Your task to perform on an android device: Search for Italian restaurants on Maps Image 0: 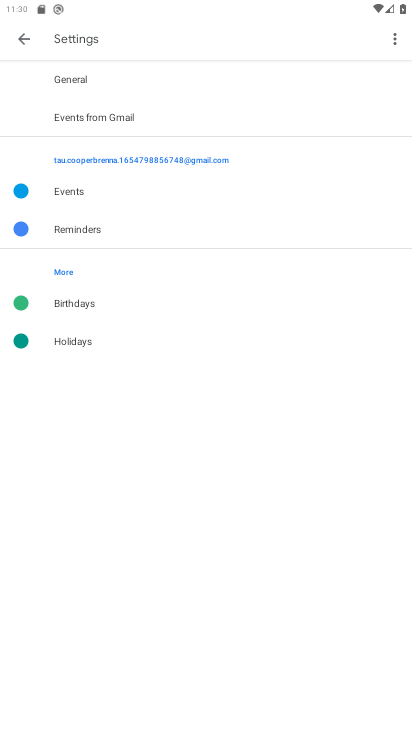
Step 0: press home button
Your task to perform on an android device: Search for Italian restaurants on Maps Image 1: 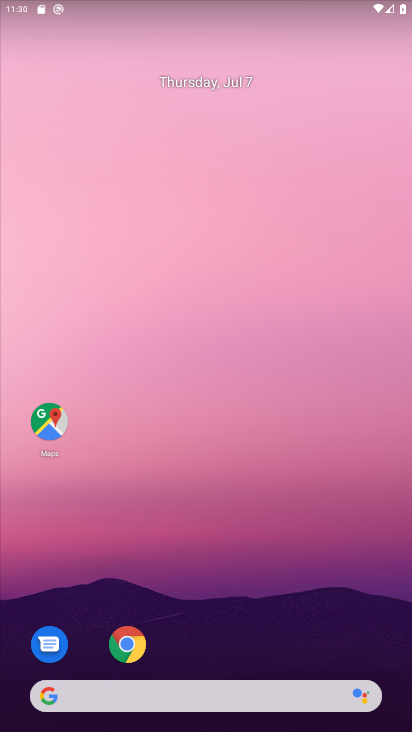
Step 1: click (45, 416)
Your task to perform on an android device: Search for Italian restaurants on Maps Image 2: 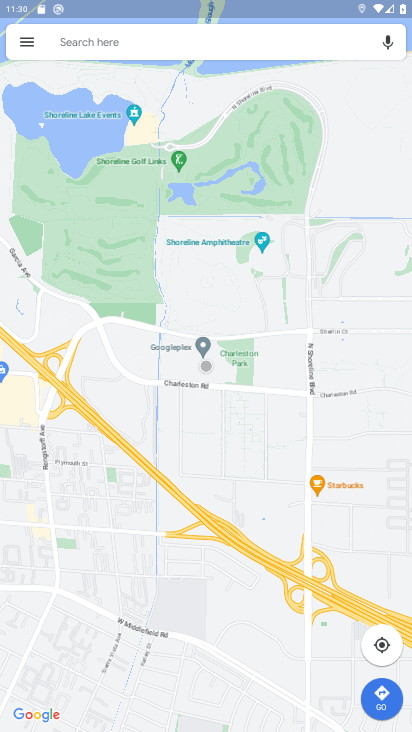
Step 2: click (95, 37)
Your task to perform on an android device: Search for Italian restaurants on Maps Image 3: 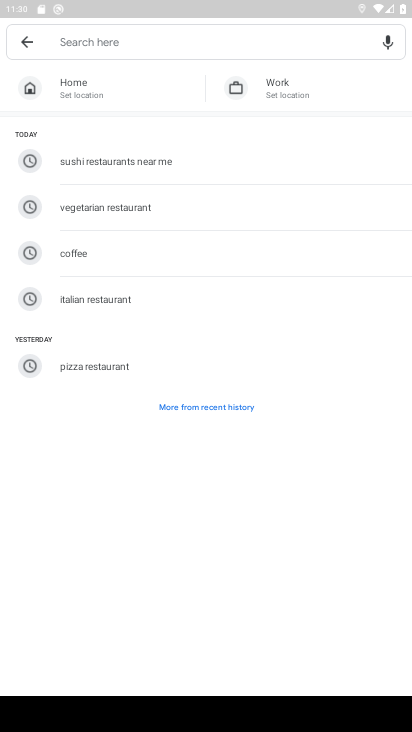
Step 3: click (96, 42)
Your task to perform on an android device: Search for Italian restaurants on Maps Image 4: 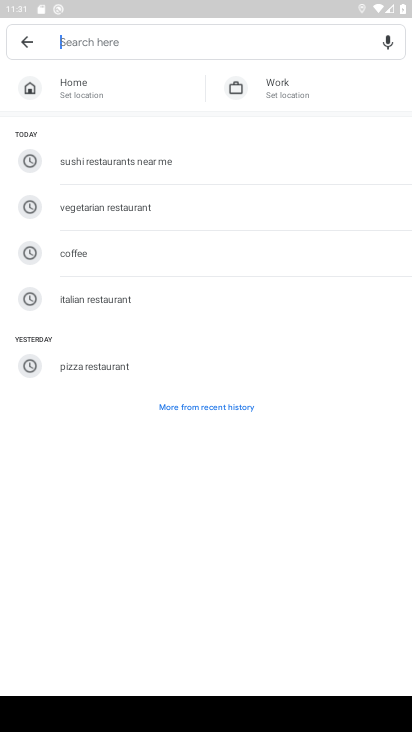
Step 4: type "Italian restaurants"
Your task to perform on an android device: Search for Italian restaurants on Maps Image 5: 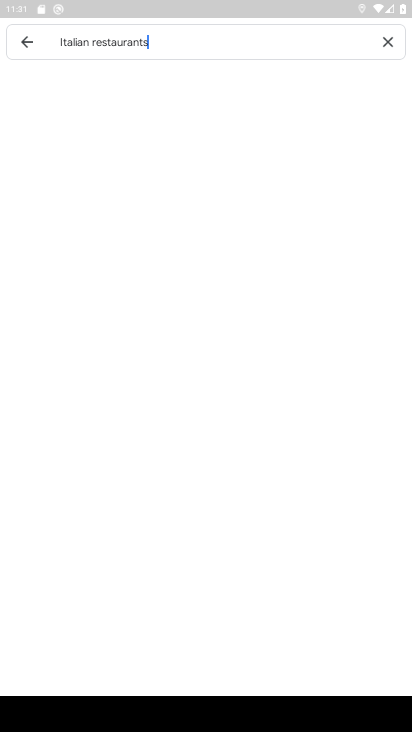
Step 5: type ""
Your task to perform on an android device: Search for Italian restaurants on Maps Image 6: 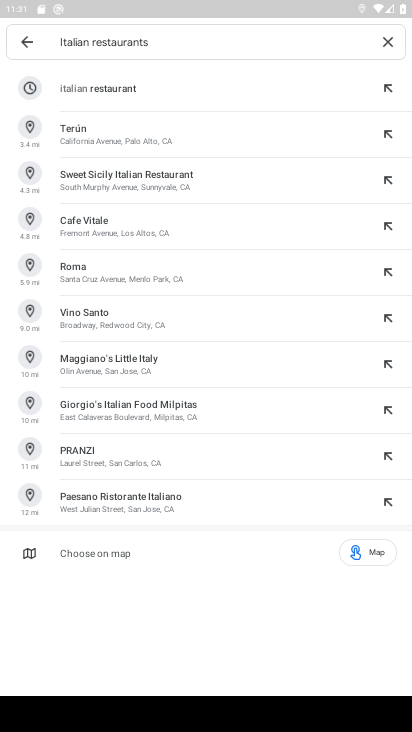
Step 6: click (112, 85)
Your task to perform on an android device: Search for Italian restaurants on Maps Image 7: 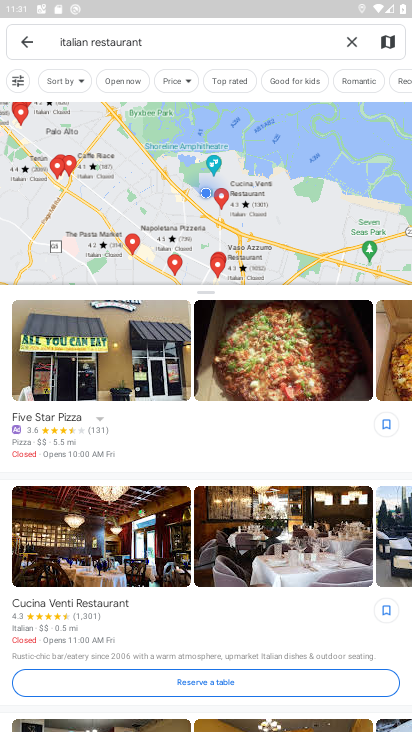
Step 7: task complete